Your task to perform on an android device: toggle notification dots Image 0: 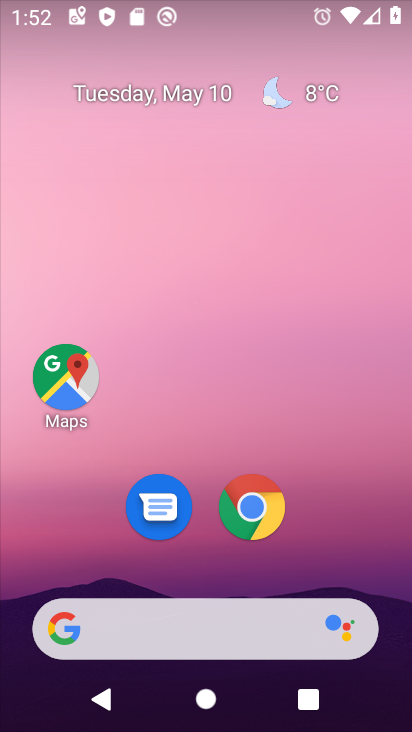
Step 0: drag from (228, 712) to (231, 70)
Your task to perform on an android device: toggle notification dots Image 1: 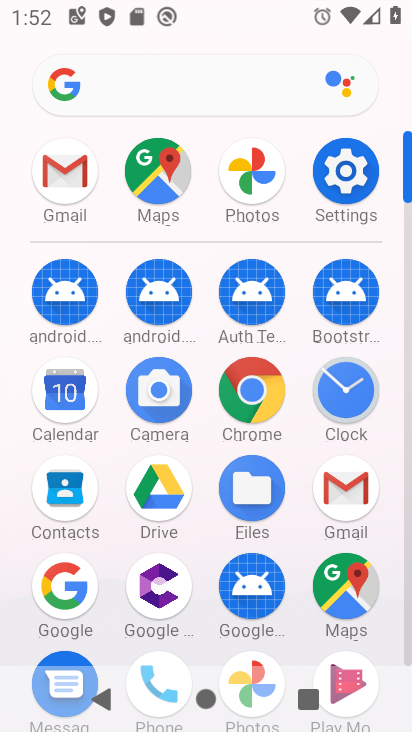
Step 1: click (346, 169)
Your task to perform on an android device: toggle notification dots Image 2: 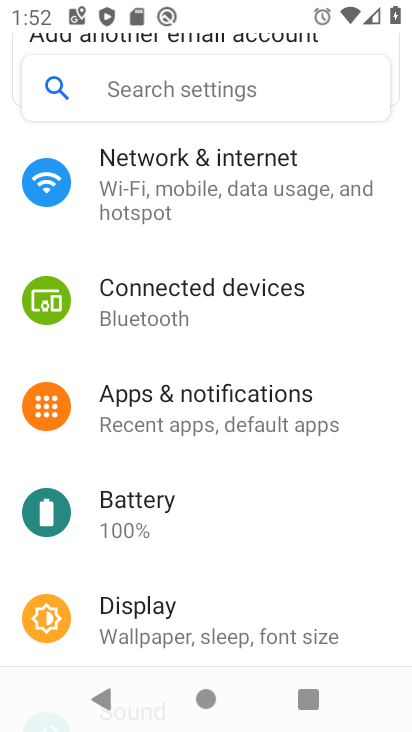
Step 2: click (187, 409)
Your task to perform on an android device: toggle notification dots Image 3: 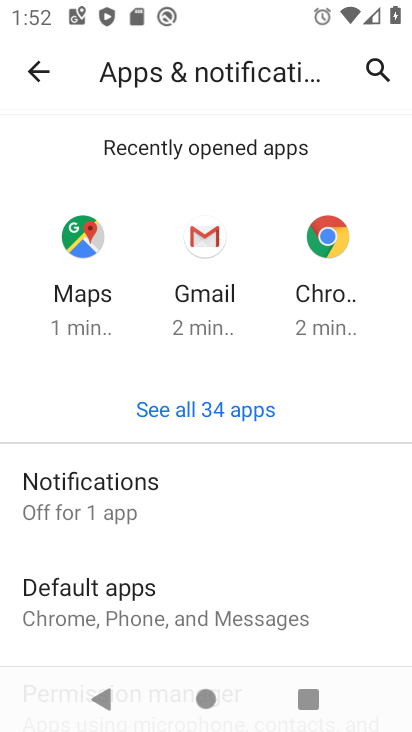
Step 3: click (85, 504)
Your task to perform on an android device: toggle notification dots Image 4: 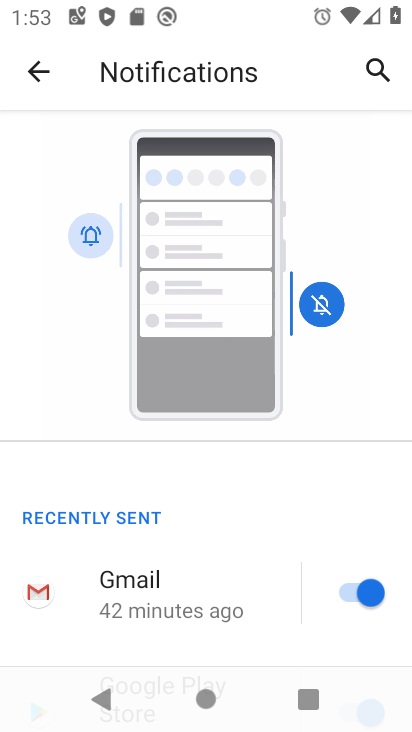
Step 4: drag from (154, 604) to (159, 297)
Your task to perform on an android device: toggle notification dots Image 5: 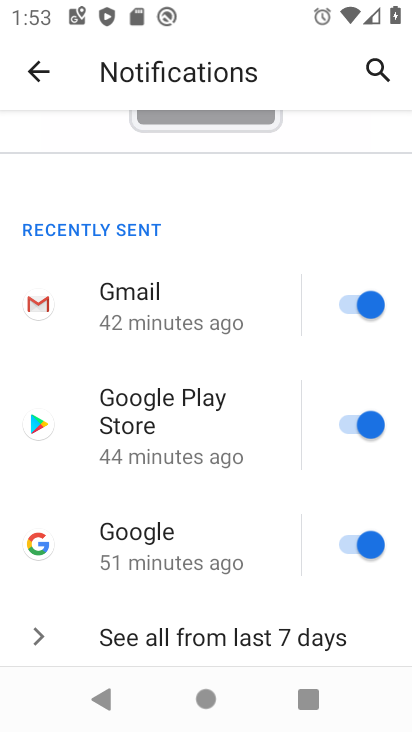
Step 5: drag from (185, 630) to (185, 231)
Your task to perform on an android device: toggle notification dots Image 6: 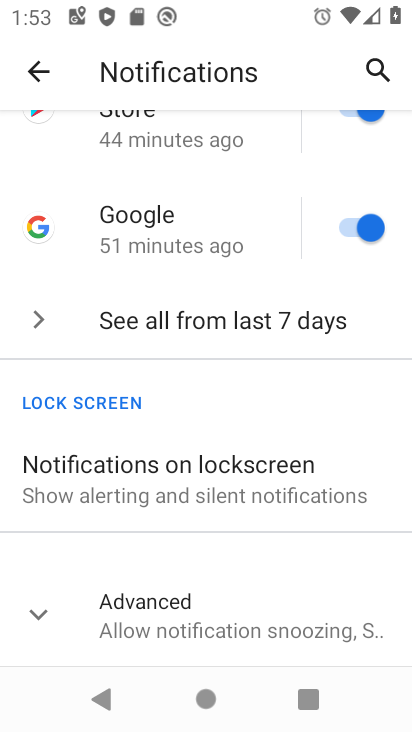
Step 6: click (184, 610)
Your task to perform on an android device: toggle notification dots Image 7: 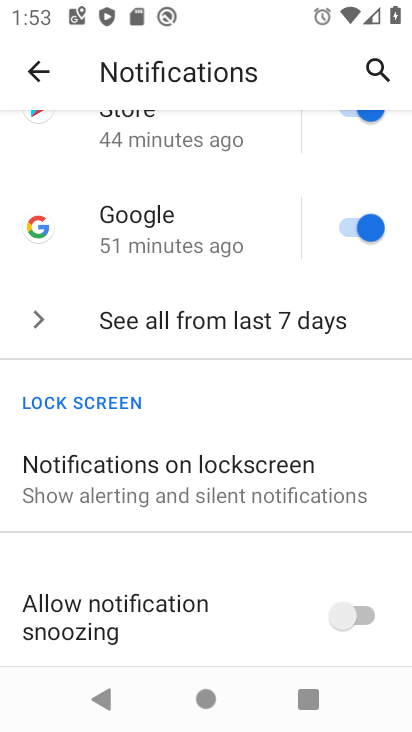
Step 7: drag from (177, 640) to (197, 307)
Your task to perform on an android device: toggle notification dots Image 8: 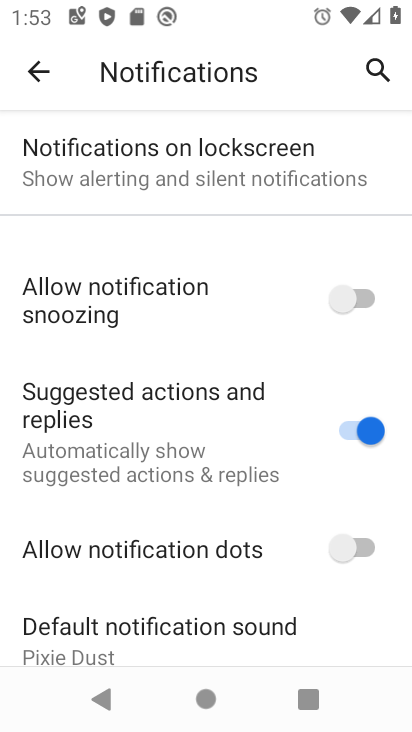
Step 8: click (365, 545)
Your task to perform on an android device: toggle notification dots Image 9: 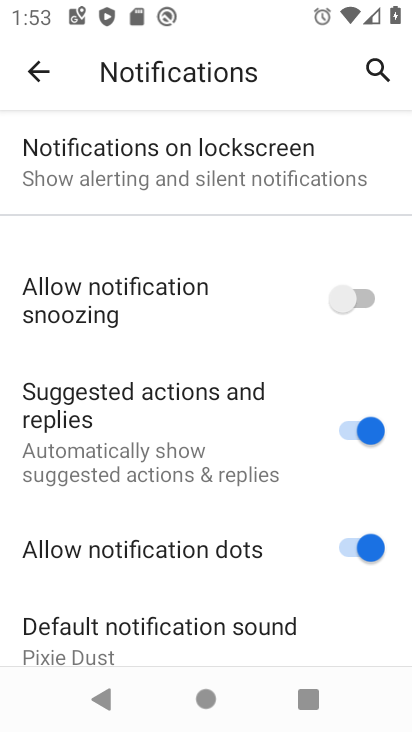
Step 9: task complete